Your task to perform on an android device: Open the map Image 0: 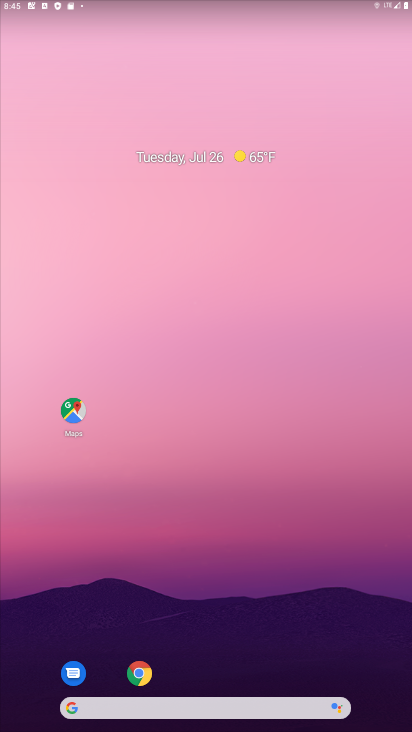
Step 0: click (60, 399)
Your task to perform on an android device: Open the map Image 1: 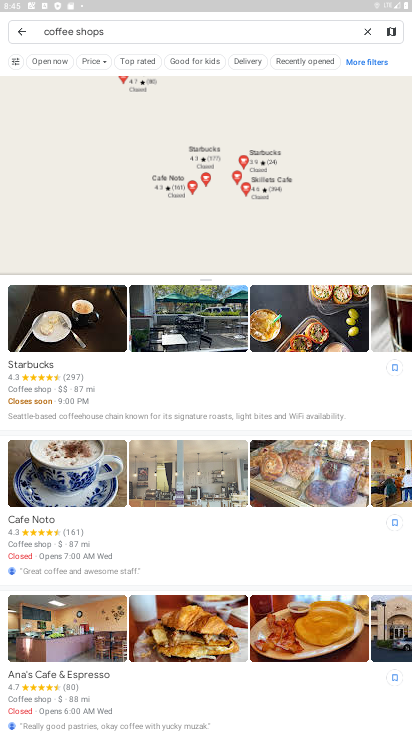
Step 1: task complete